Your task to perform on an android device: find photos in the google photos app Image 0: 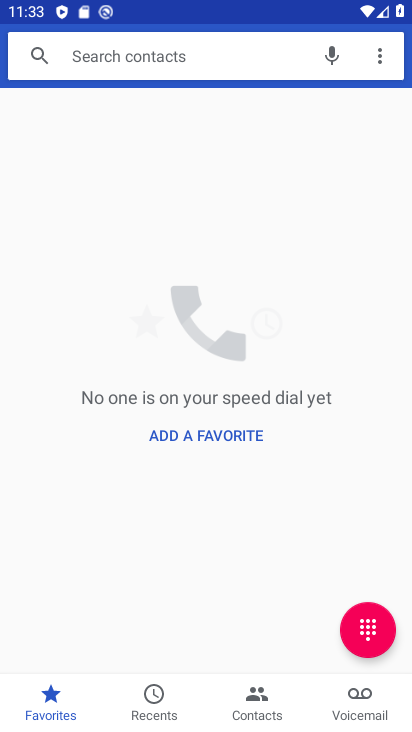
Step 0: press home button
Your task to perform on an android device: find photos in the google photos app Image 1: 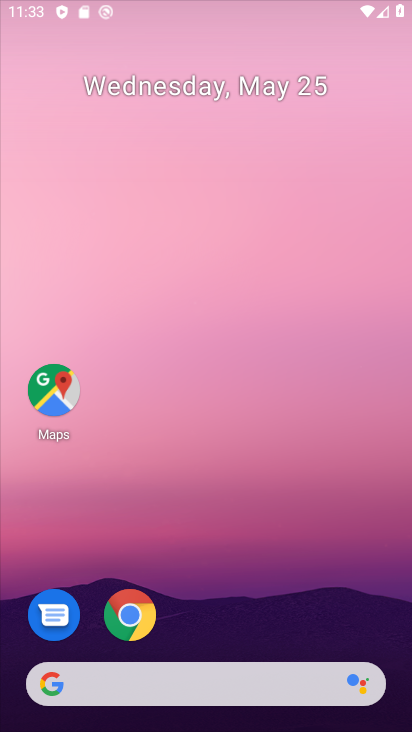
Step 1: drag from (334, 638) to (293, 63)
Your task to perform on an android device: find photos in the google photos app Image 2: 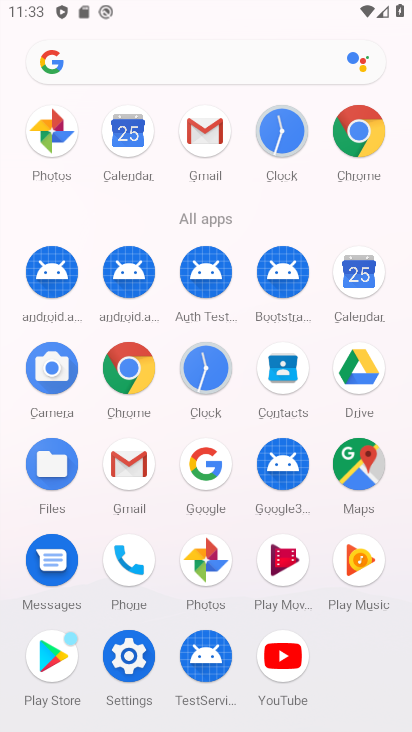
Step 2: click (219, 554)
Your task to perform on an android device: find photos in the google photos app Image 3: 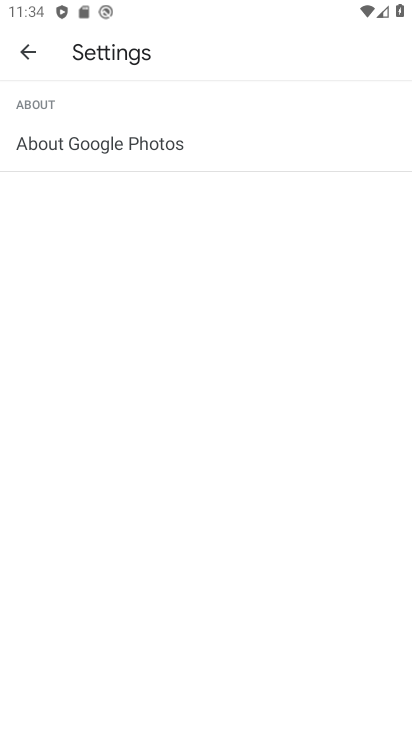
Step 3: task complete